Your task to perform on an android device: open app "Duolingo: language lessons" Image 0: 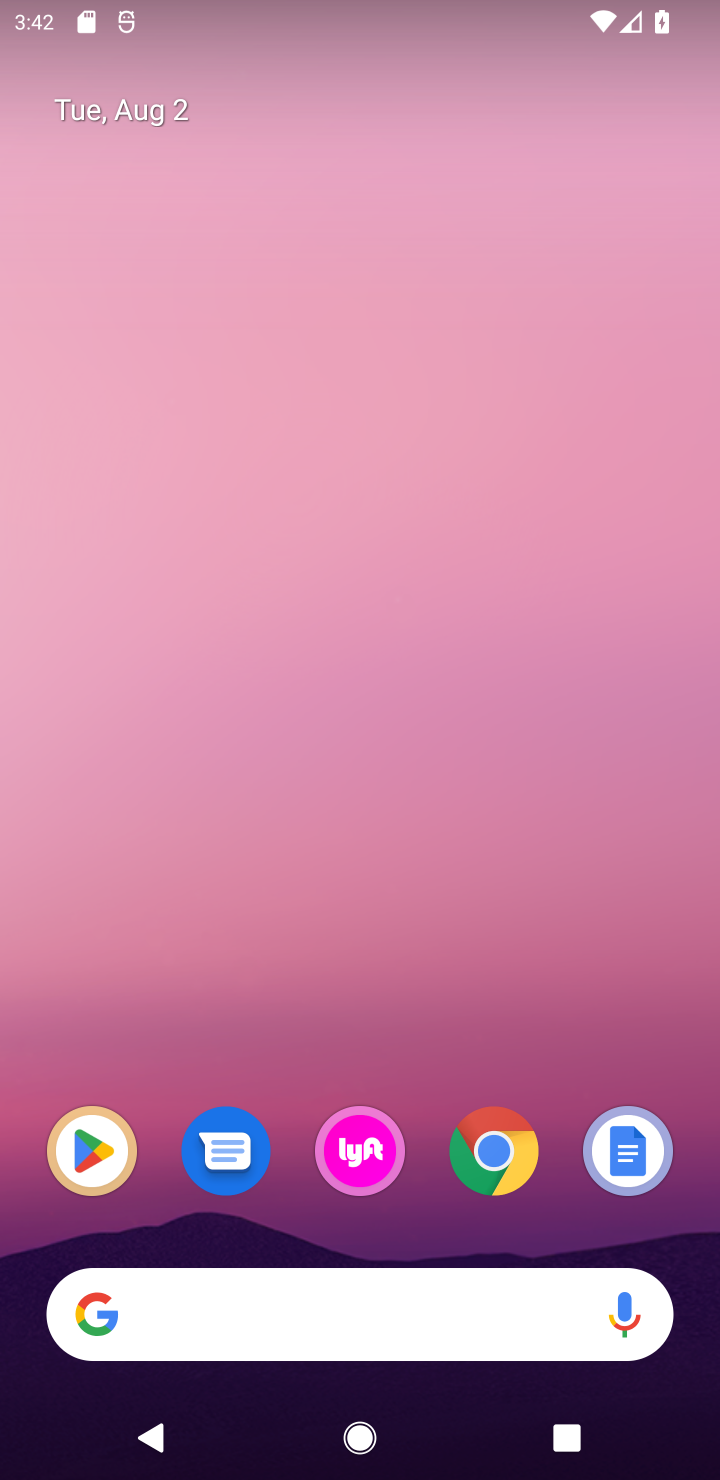
Step 0: drag from (427, 1460) to (415, 107)
Your task to perform on an android device: open app "Duolingo: language lessons" Image 1: 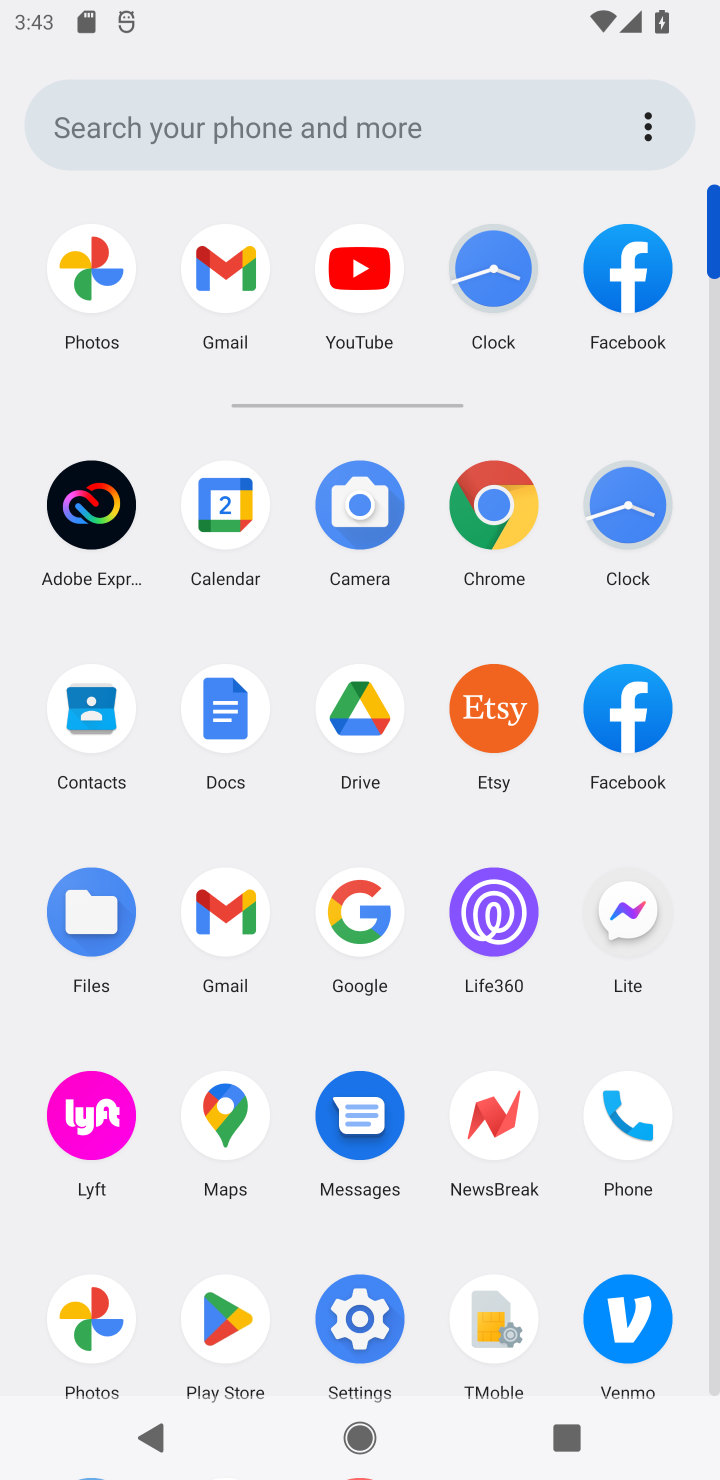
Step 1: click (222, 1309)
Your task to perform on an android device: open app "Duolingo: language lessons" Image 2: 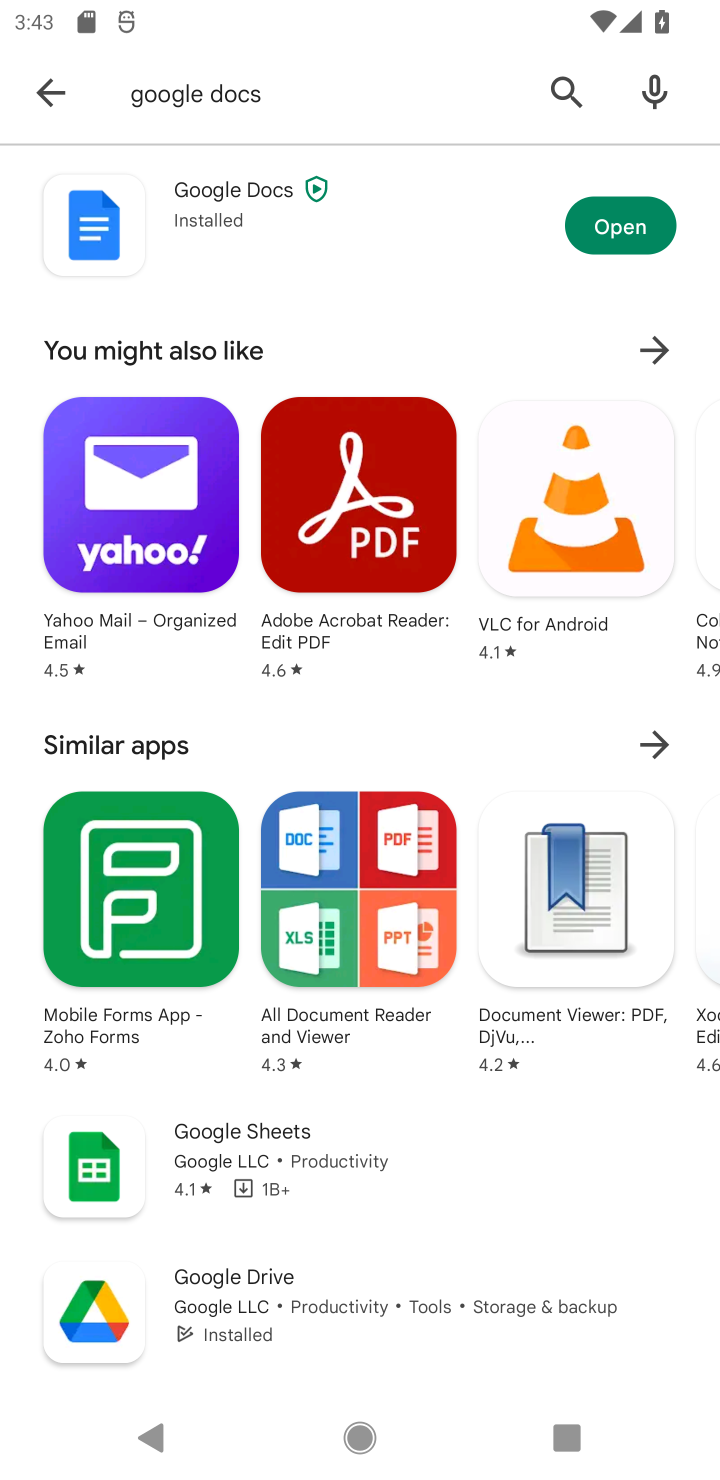
Step 2: click (541, 90)
Your task to perform on an android device: open app "Duolingo: language lessons" Image 3: 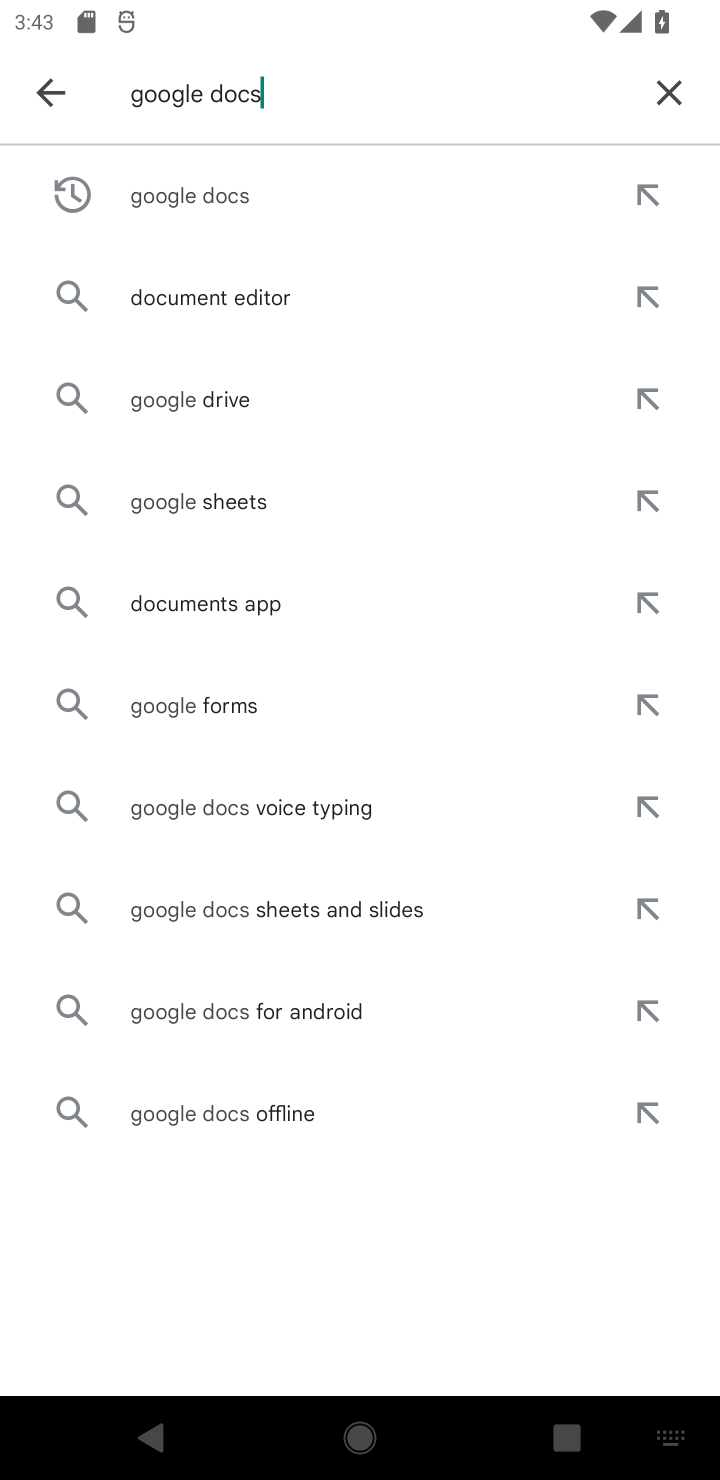
Step 3: click (665, 92)
Your task to perform on an android device: open app "Duolingo: language lessons" Image 4: 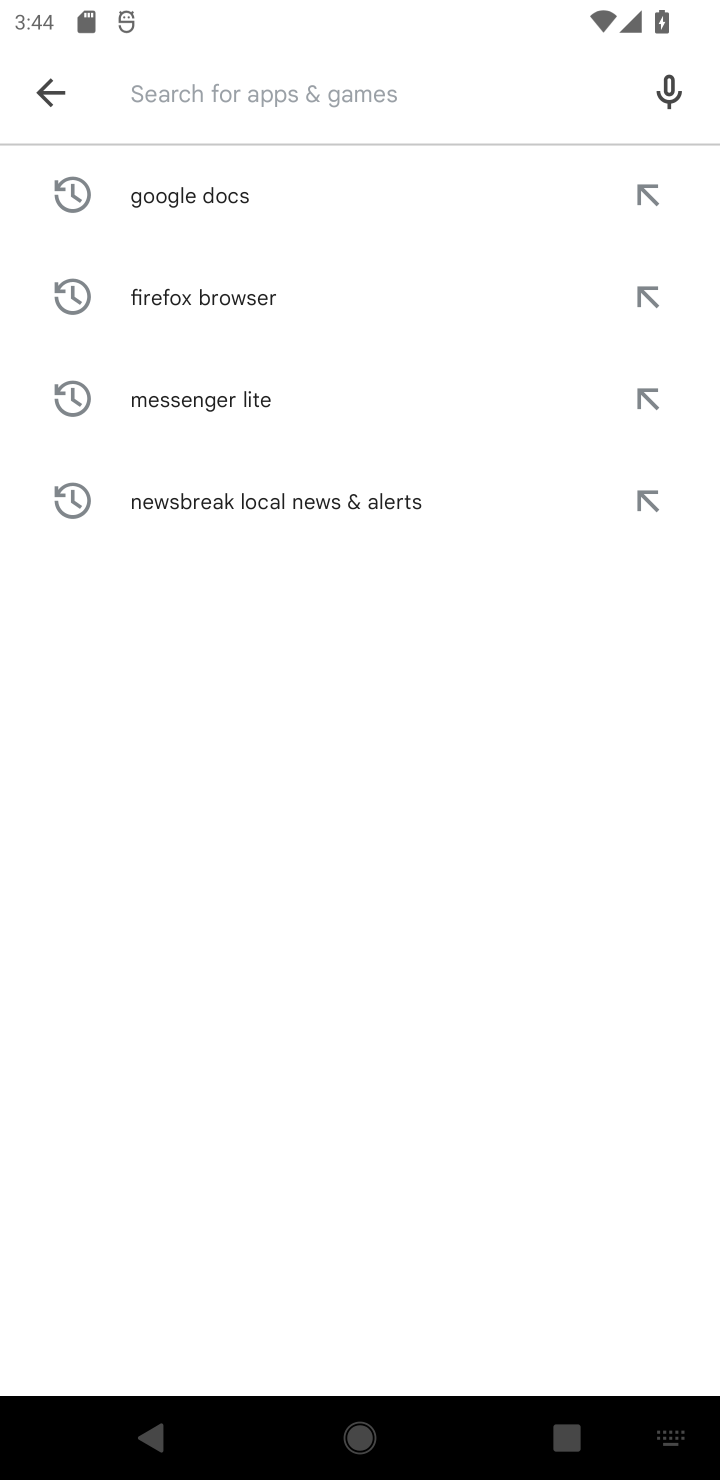
Step 4: type "Duolingo: language lessons"
Your task to perform on an android device: open app "Duolingo: language lessons" Image 5: 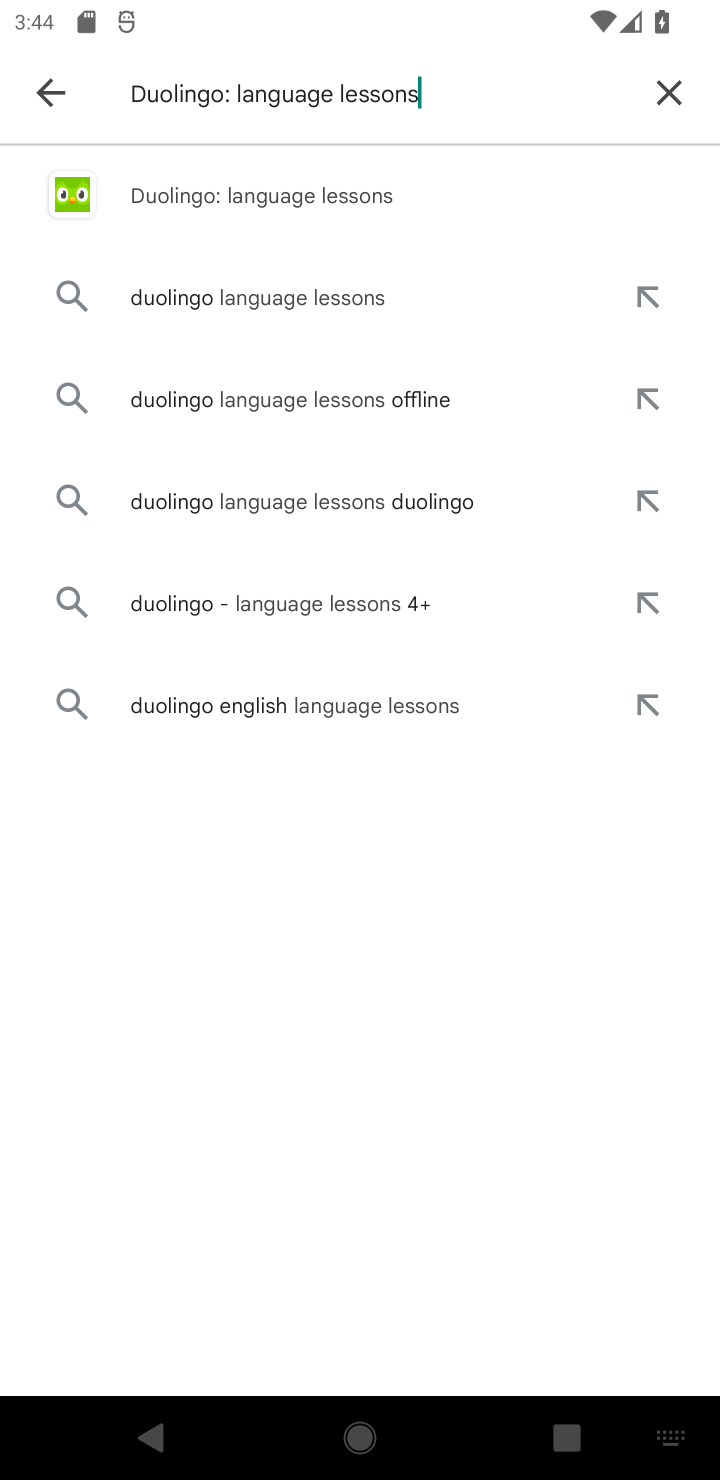
Step 5: click (307, 193)
Your task to perform on an android device: open app "Duolingo: language lessons" Image 6: 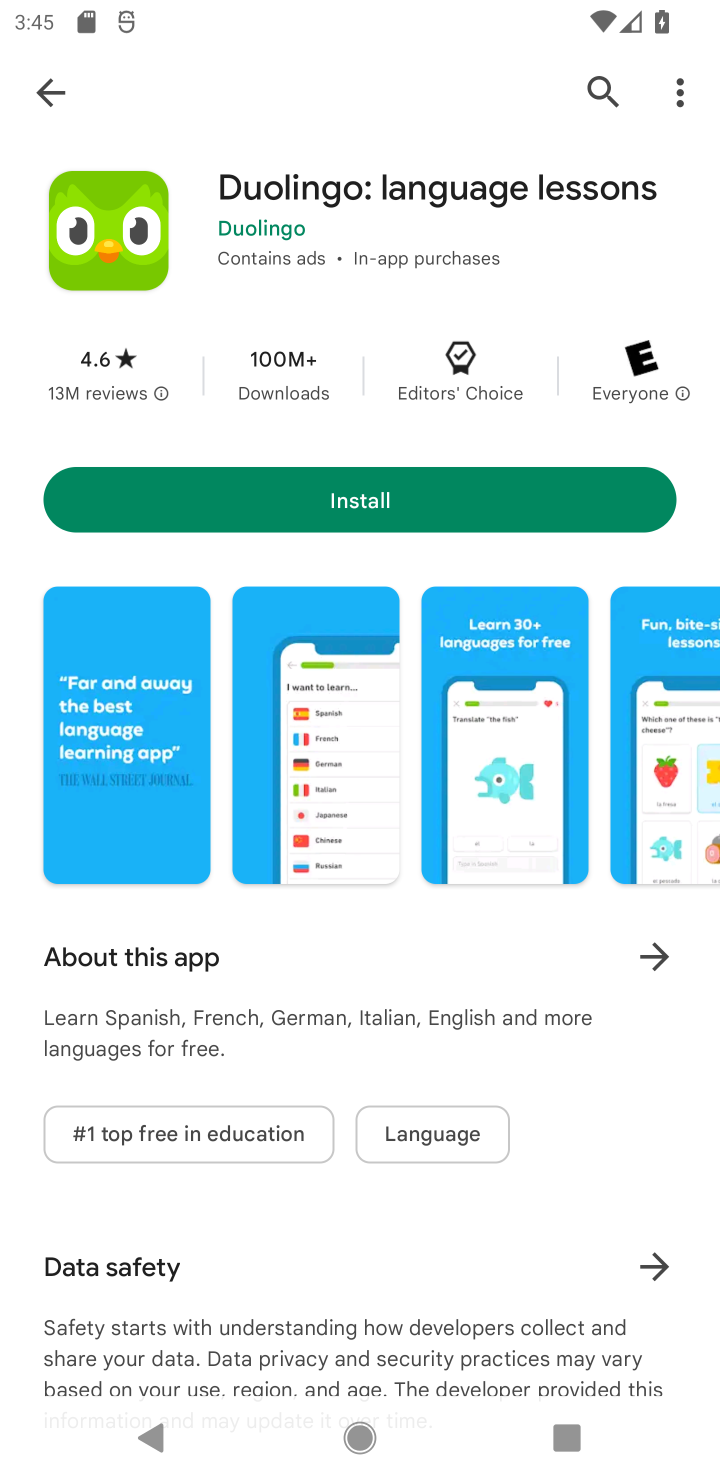
Step 6: task complete